Your task to perform on an android device: Go to calendar. Show me events next week Image 0: 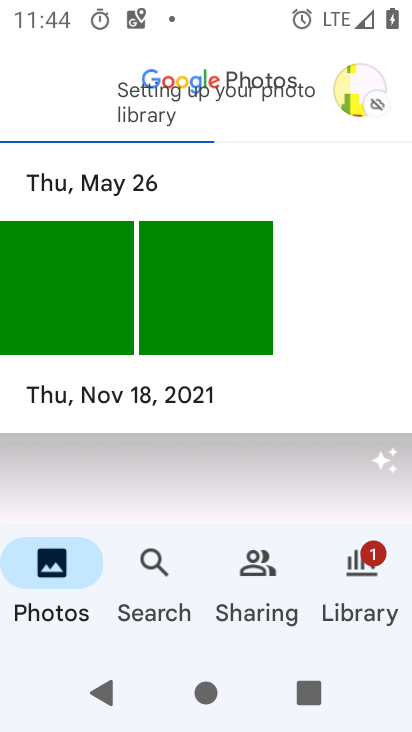
Step 0: press back button
Your task to perform on an android device: Go to calendar. Show me events next week Image 1: 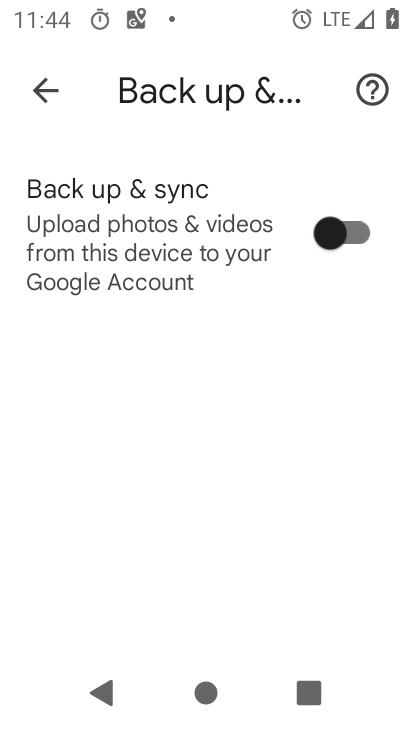
Step 1: press home button
Your task to perform on an android device: Go to calendar. Show me events next week Image 2: 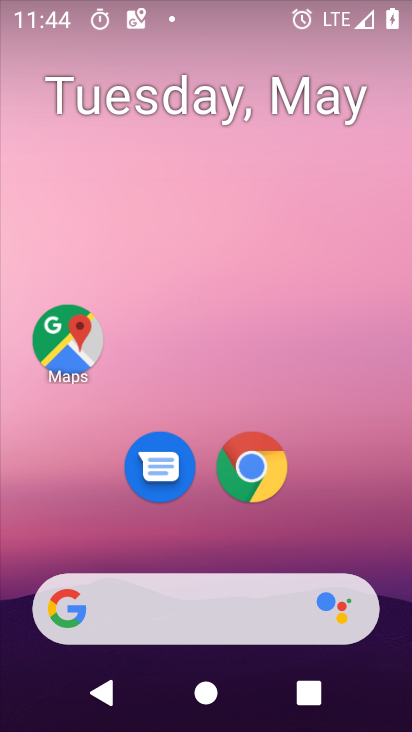
Step 2: drag from (363, 495) to (256, 15)
Your task to perform on an android device: Go to calendar. Show me events next week Image 3: 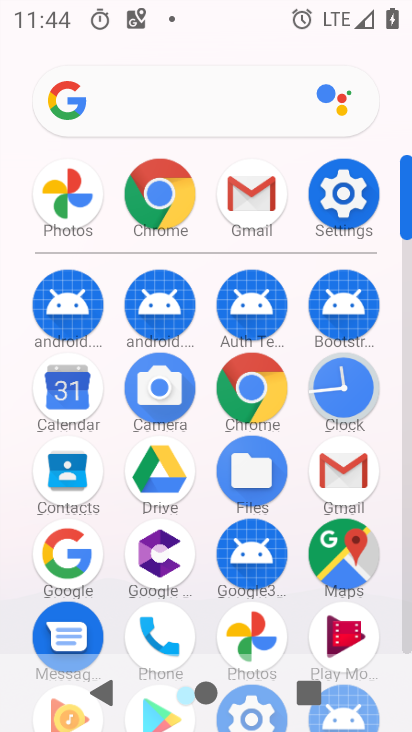
Step 3: click (66, 379)
Your task to perform on an android device: Go to calendar. Show me events next week Image 4: 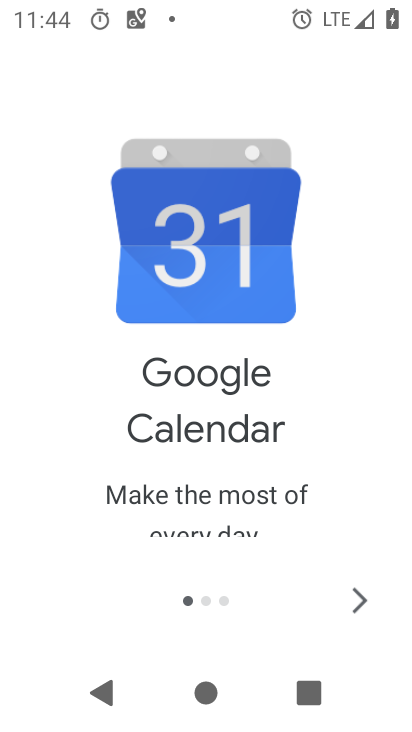
Step 4: click (358, 593)
Your task to perform on an android device: Go to calendar. Show me events next week Image 5: 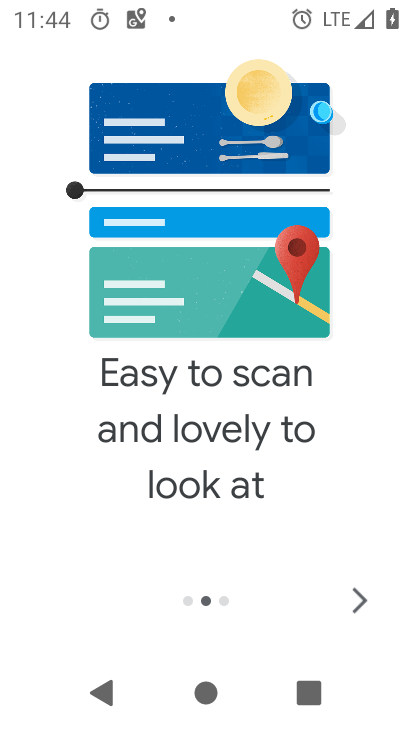
Step 5: click (358, 593)
Your task to perform on an android device: Go to calendar. Show me events next week Image 6: 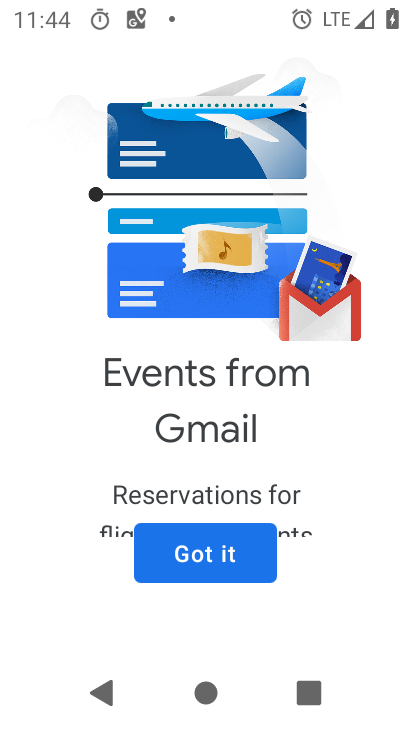
Step 6: click (222, 531)
Your task to perform on an android device: Go to calendar. Show me events next week Image 7: 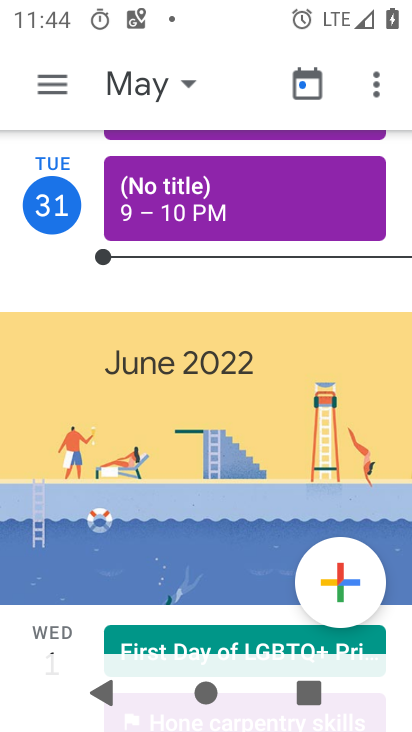
Step 7: click (151, 74)
Your task to perform on an android device: Go to calendar. Show me events next week Image 8: 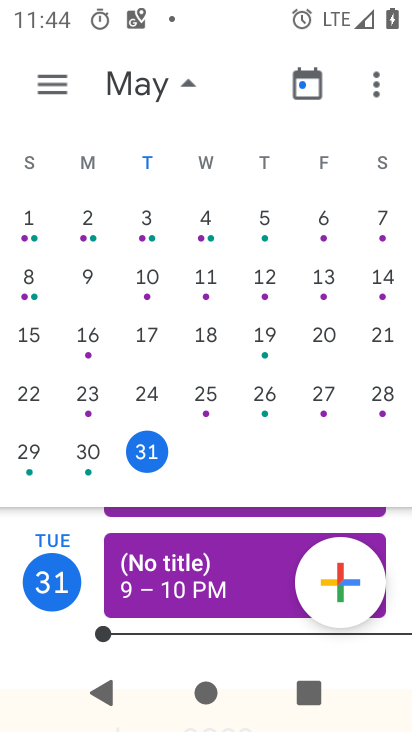
Step 8: click (51, 85)
Your task to perform on an android device: Go to calendar. Show me events next week Image 9: 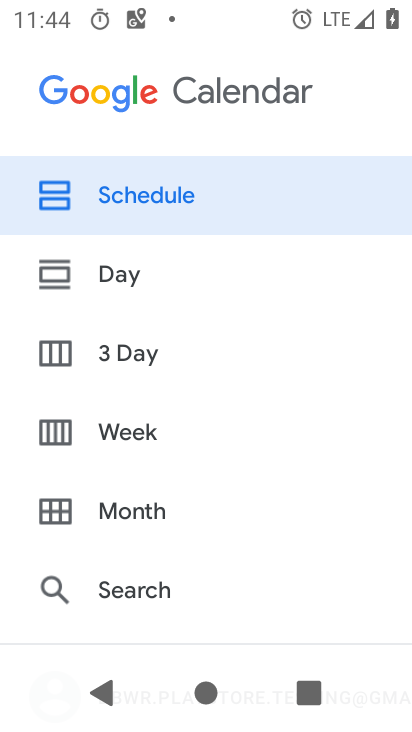
Step 9: click (124, 419)
Your task to perform on an android device: Go to calendar. Show me events next week Image 10: 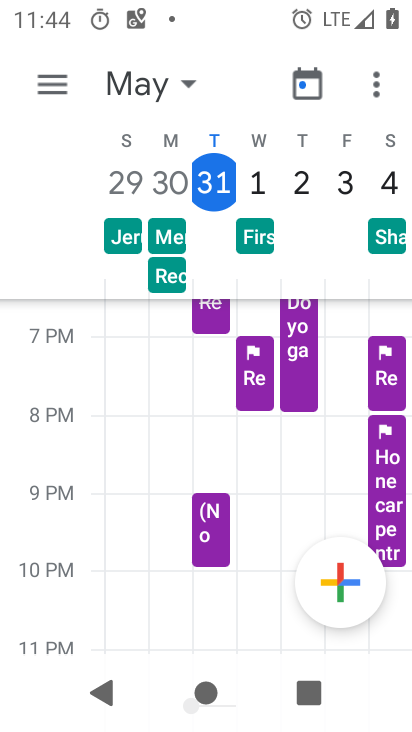
Step 10: task complete